Your task to perform on an android device: Clear the shopping cart on costco. Search for "rayovac triple a" on costco, select the first entry, add it to the cart, then select checkout. Image 0: 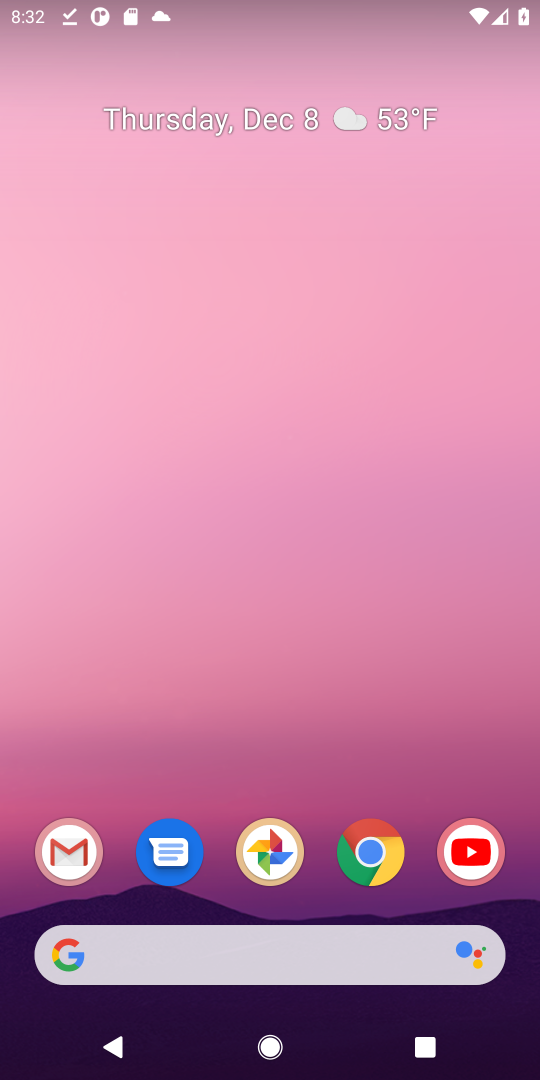
Step 0: click (290, 949)
Your task to perform on an android device: Clear the shopping cart on costco. Search for "rayovac triple a" on costco, select the first entry, add it to the cart, then select checkout. Image 1: 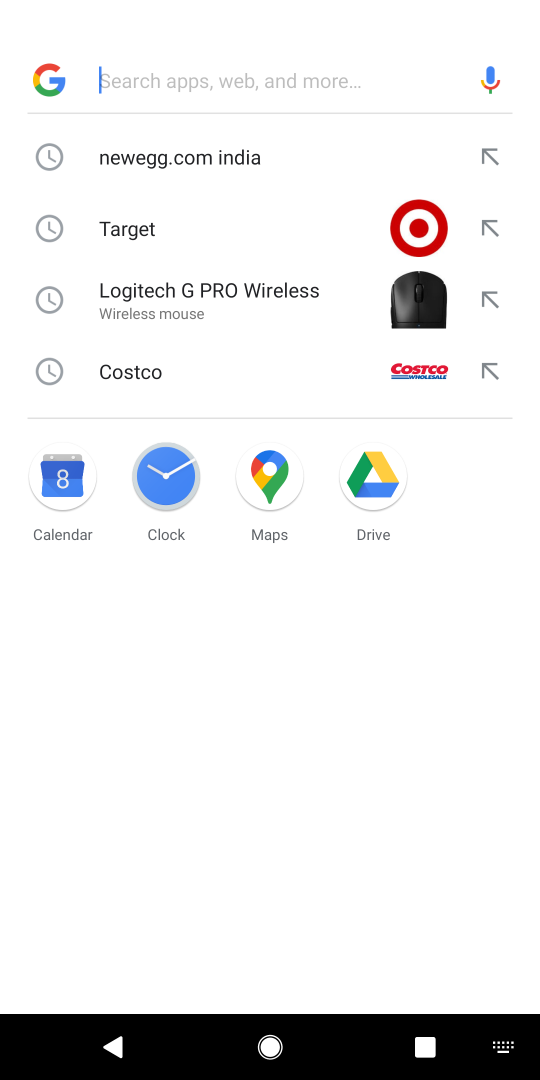
Step 1: type "costco"
Your task to perform on an android device: Clear the shopping cart on costco. Search for "rayovac triple a" on costco, select the first entry, add it to the cart, then select checkout. Image 2: 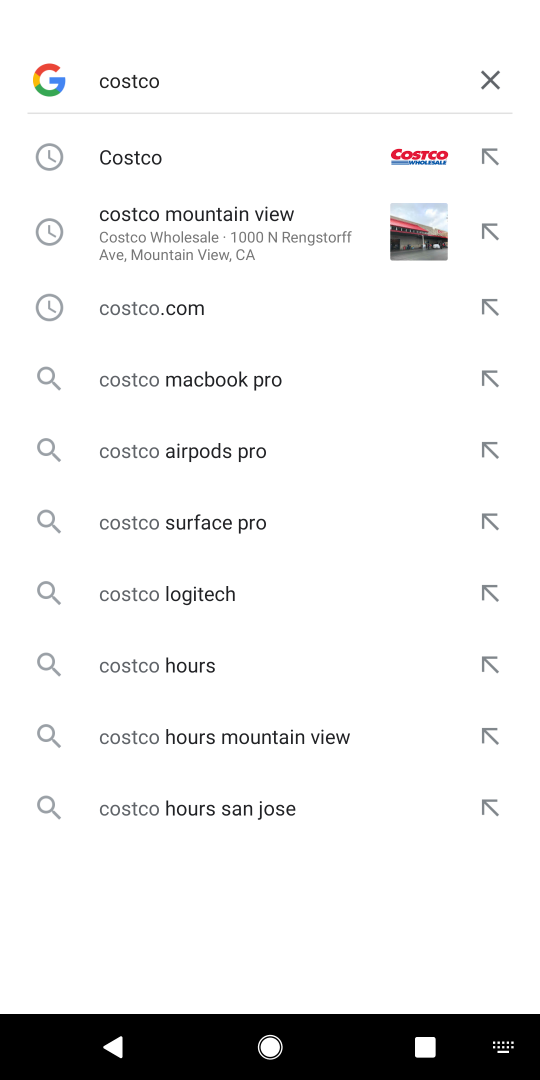
Step 2: click (137, 179)
Your task to perform on an android device: Clear the shopping cart on costco. Search for "rayovac triple a" on costco, select the first entry, add it to the cart, then select checkout. Image 3: 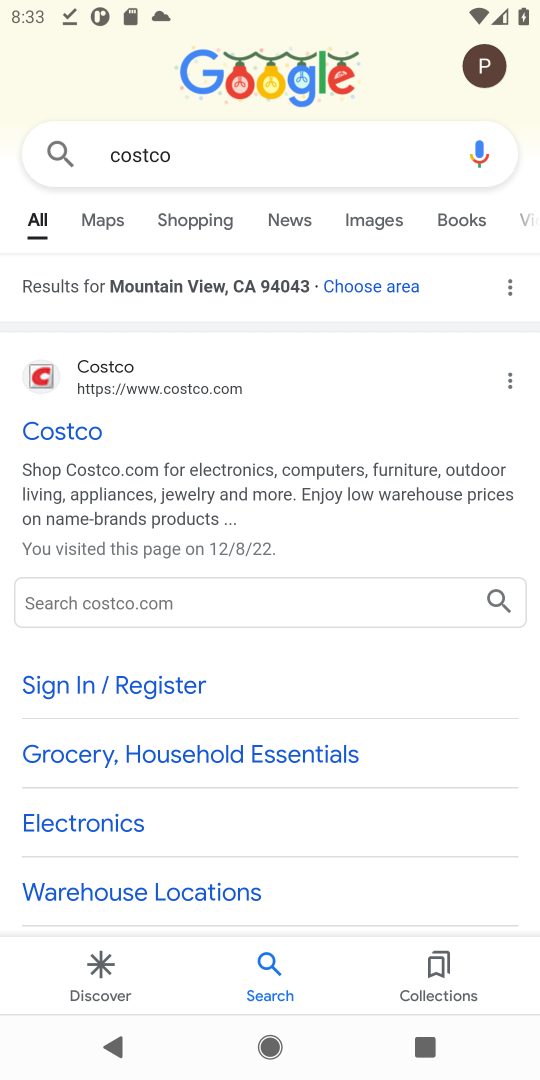
Step 3: click (55, 433)
Your task to perform on an android device: Clear the shopping cart on costco. Search for "rayovac triple a" on costco, select the first entry, add it to the cart, then select checkout. Image 4: 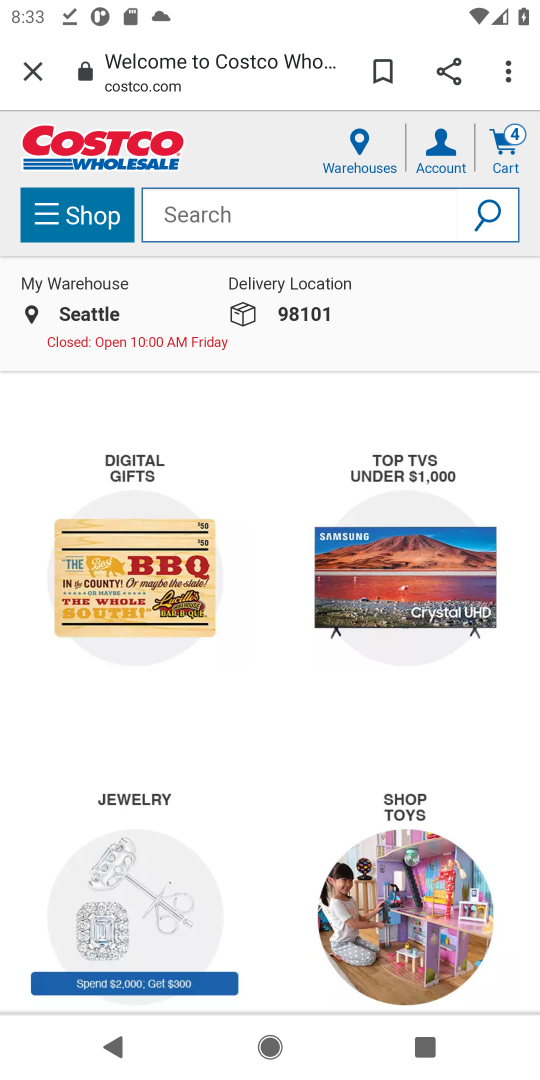
Step 4: click (230, 236)
Your task to perform on an android device: Clear the shopping cart on costco. Search for "rayovac triple a" on costco, select the first entry, add it to the cart, then select checkout. Image 5: 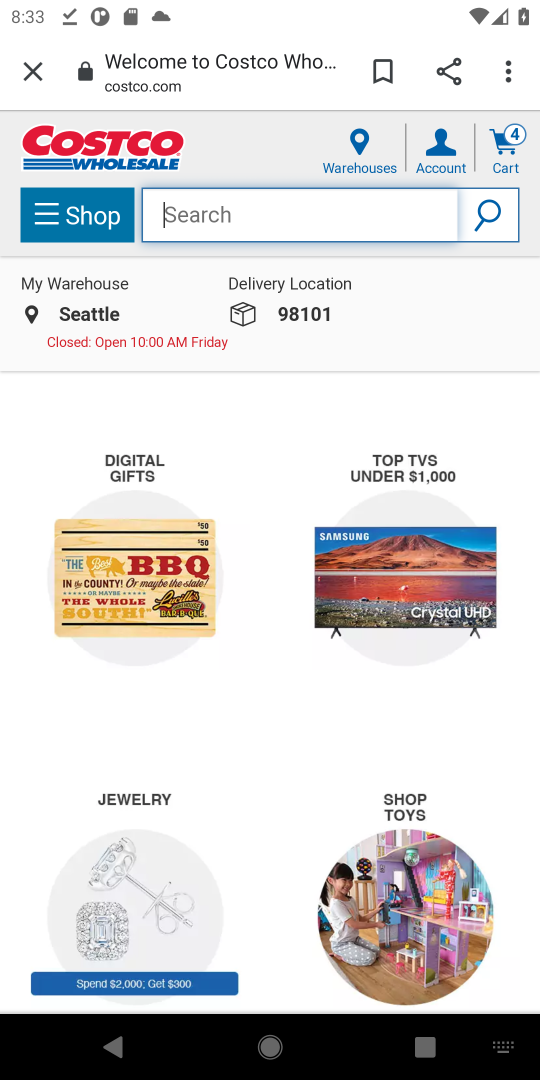
Step 5: type "rayovac"
Your task to perform on an android device: Clear the shopping cart on costco. Search for "rayovac triple a" on costco, select the first entry, add it to the cart, then select checkout. Image 6: 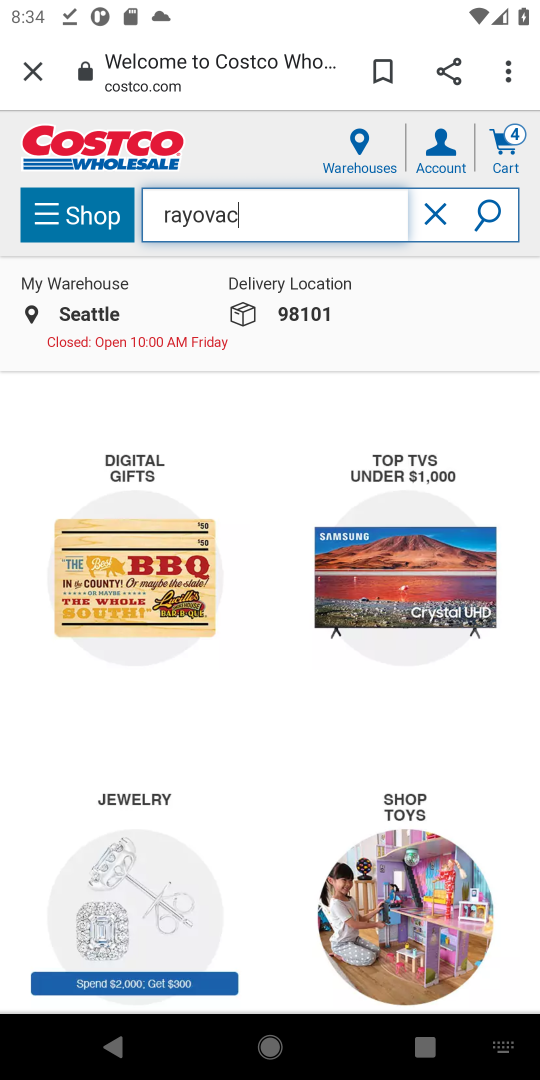
Step 6: type " triple a"
Your task to perform on an android device: Clear the shopping cart on costco. Search for "rayovac triple a" on costco, select the first entry, add it to the cart, then select checkout. Image 7: 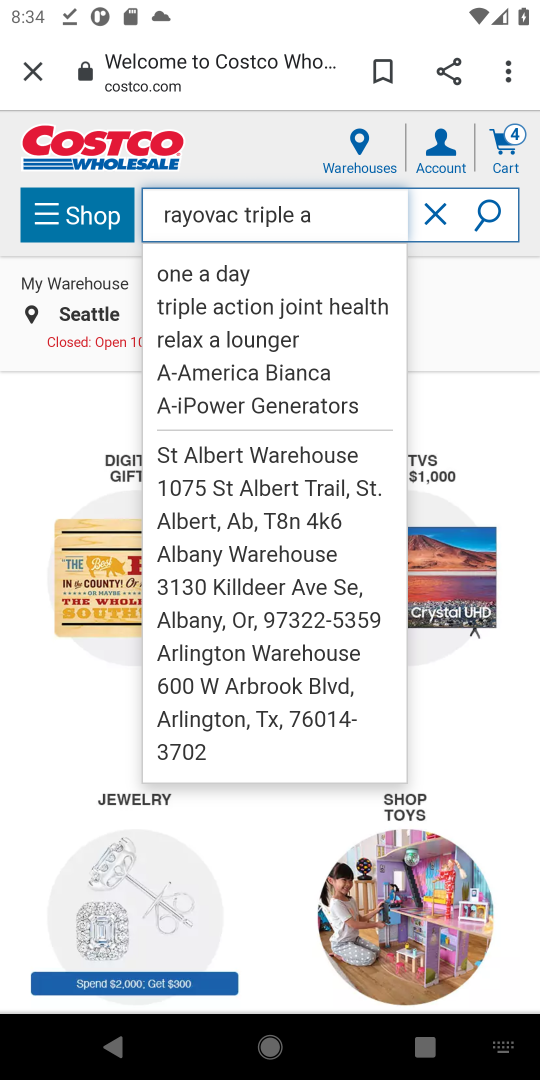
Step 7: click (501, 215)
Your task to perform on an android device: Clear the shopping cart on costco. Search for "rayovac triple a" on costco, select the first entry, add it to the cart, then select checkout. Image 8: 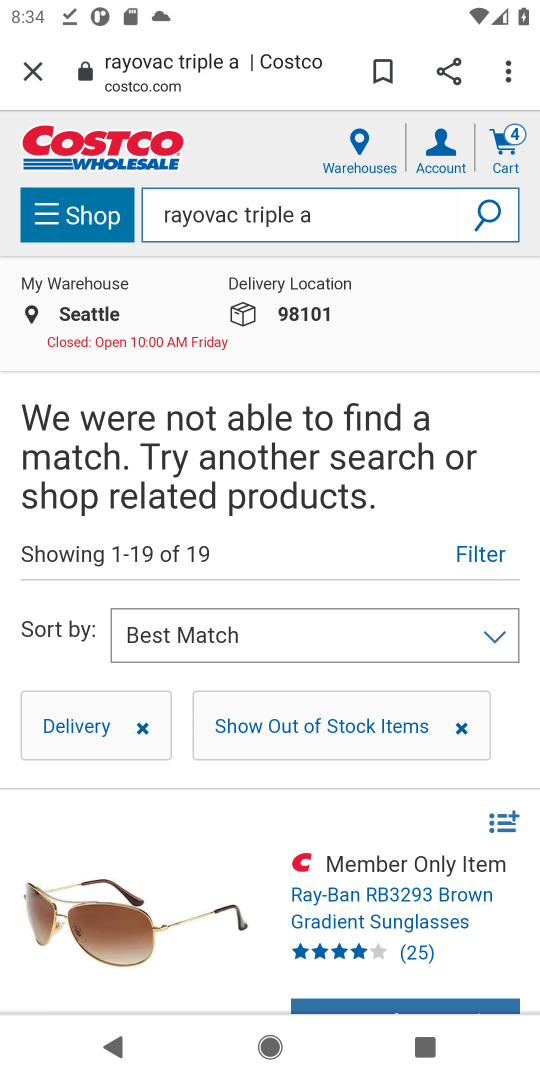
Step 8: task complete